Your task to perform on an android device: turn on improve location accuracy Image 0: 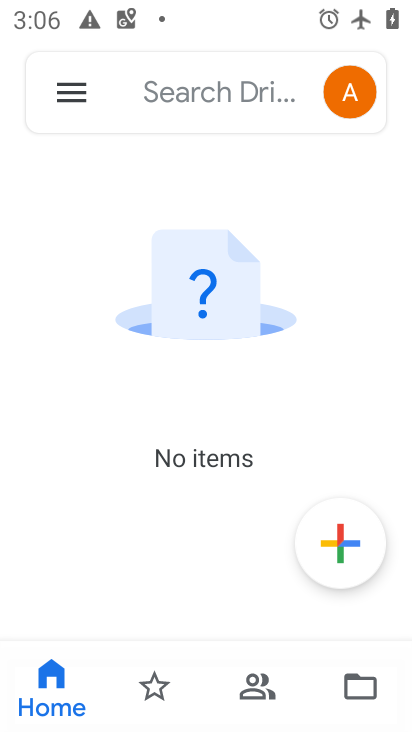
Step 0: press home button
Your task to perform on an android device: turn on improve location accuracy Image 1: 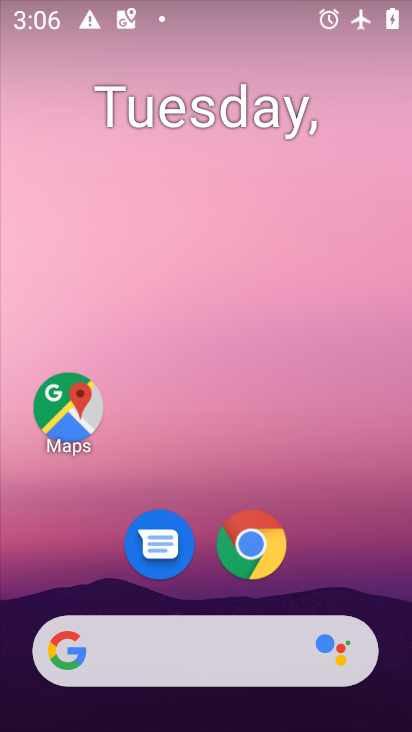
Step 1: drag from (357, 546) to (337, 58)
Your task to perform on an android device: turn on improve location accuracy Image 2: 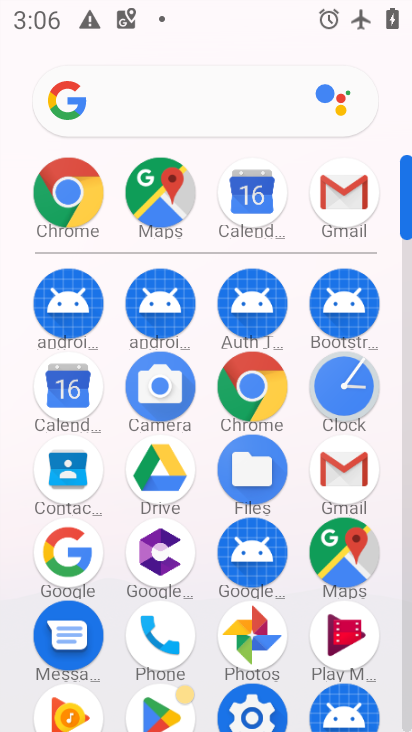
Step 2: click (247, 701)
Your task to perform on an android device: turn on improve location accuracy Image 3: 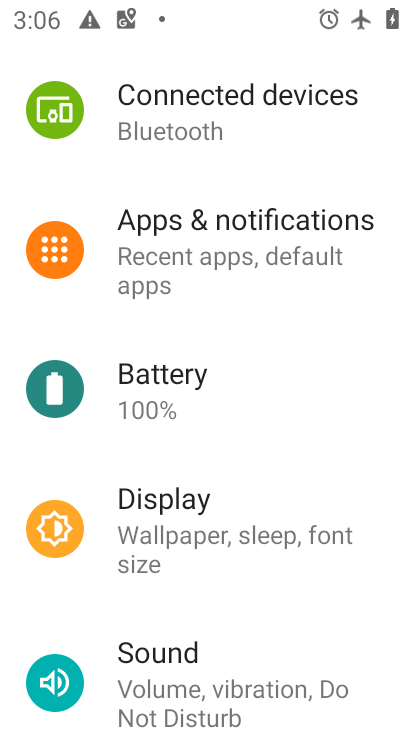
Step 3: drag from (246, 617) to (359, 111)
Your task to perform on an android device: turn on improve location accuracy Image 4: 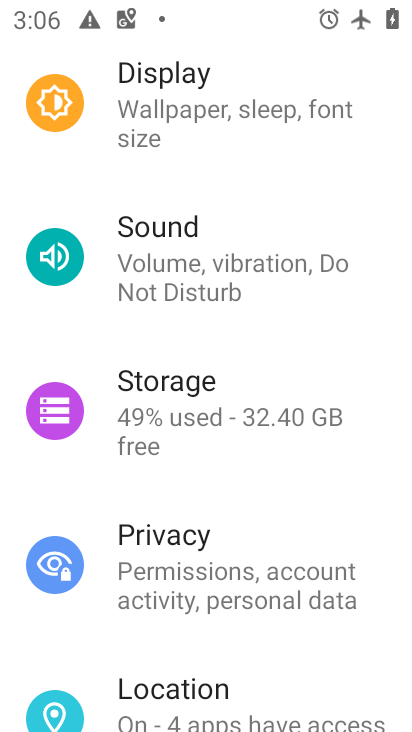
Step 4: click (189, 680)
Your task to perform on an android device: turn on improve location accuracy Image 5: 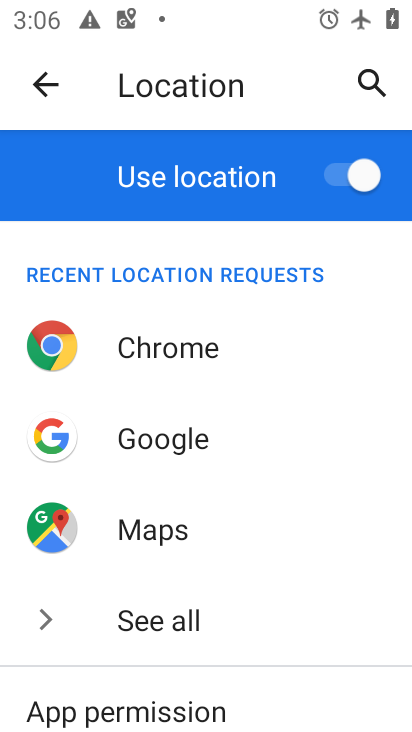
Step 5: drag from (326, 653) to (327, 97)
Your task to perform on an android device: turn on improve location accuracy Image 6: 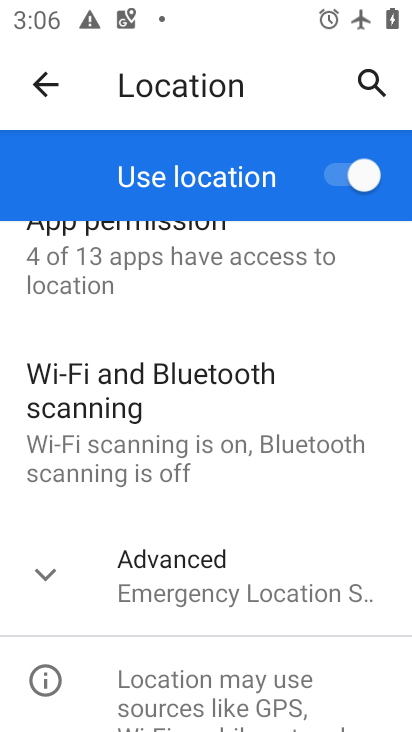
Step 6: click (222, 573)
Your task to perform on an android device: turn on improve location accuracy Image 7: 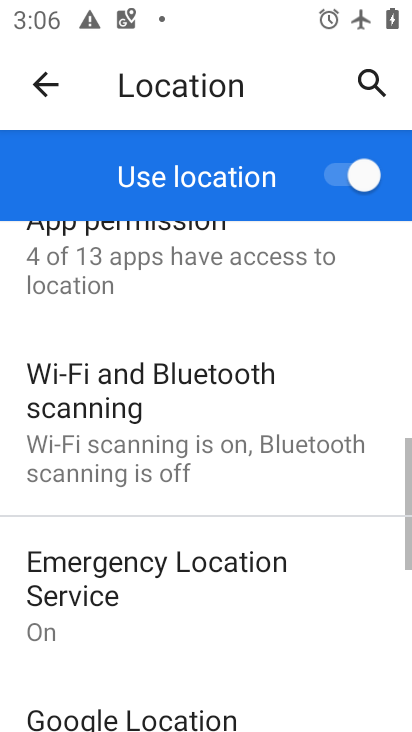
Step 7: drag from (295, 676) to (292, 145)
Your task to perform on an android device: turn on improve location accuracy Image 8: 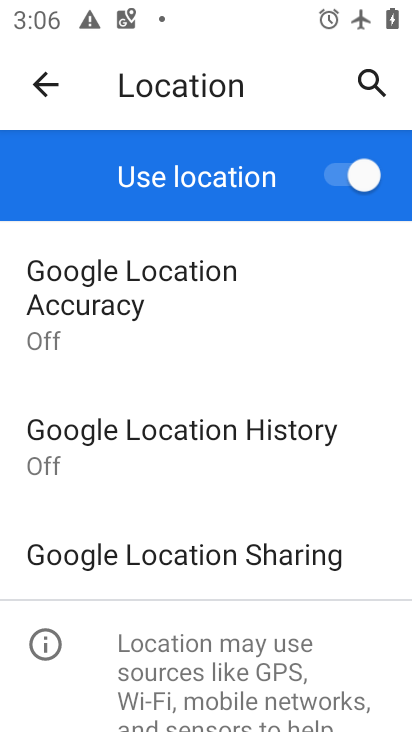
Step 8: click (150, 280)
Your task to perform on an android device: turn on improve location accuracy Image 9: 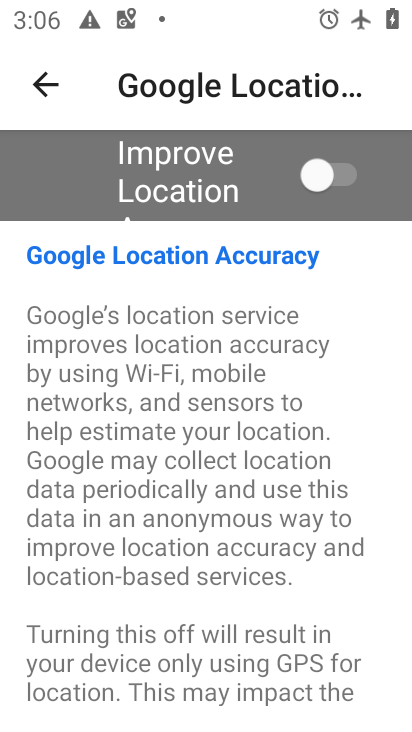
Step 9: click (313, 175)
Your task to perform on an android device: turn on improve location accuracy Image 10: 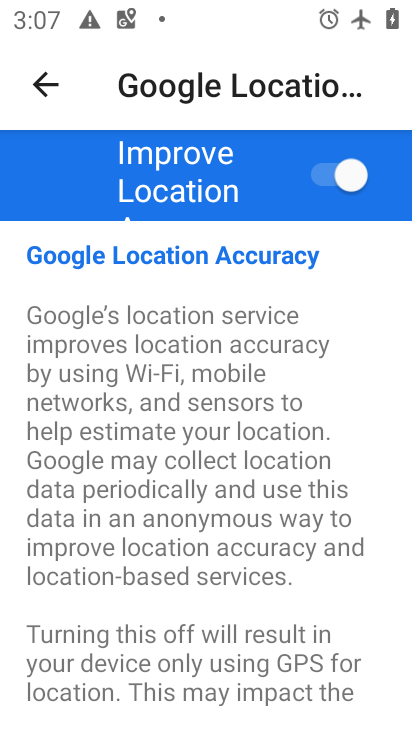
Step 10: task complete